Your task to perform on an android device: turn pop-ups on in chrome Image 0: 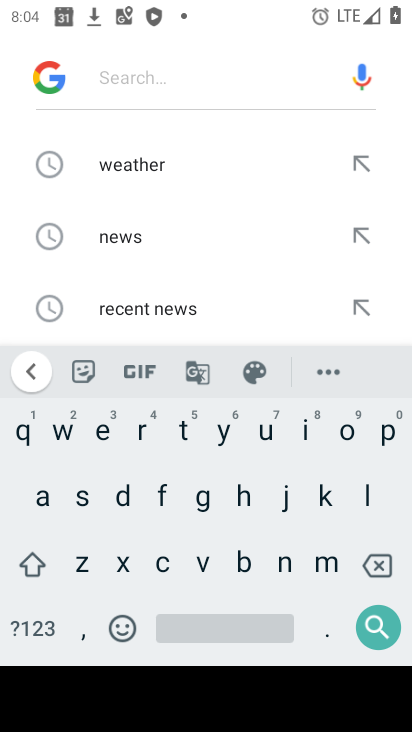
Step 0: press home button
Your task to perform on an android device: turn pop-ups on in chrome Image 1: 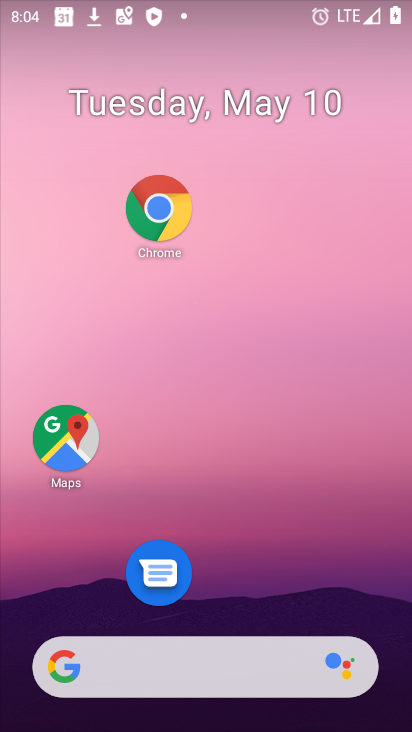
Step 1: drag from (261, 701) to (279, 324)
Your task to perform on an android device: turn pop-ups on in chrome Image 2: 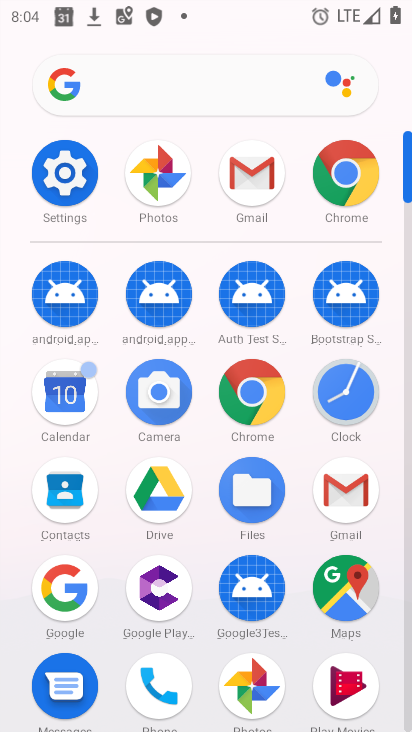
Step 2: click (337, 190)
Your task to perform on an android device: turn pop-ups on in chrome Image 3: 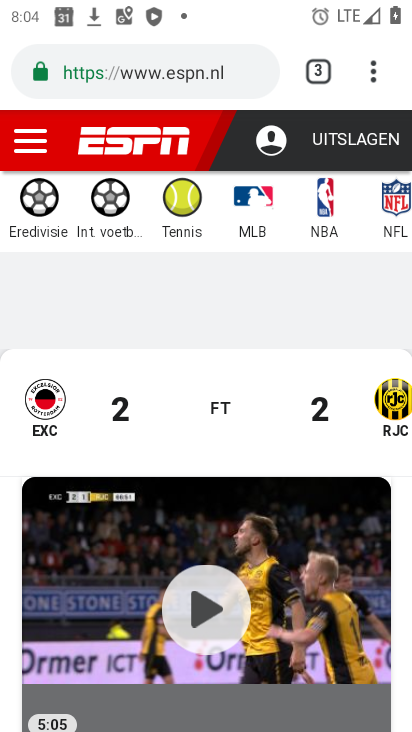
Step 3: click (366, 82)
Your task to perform on an android device: turn pop-ups on in chrome Image 4: 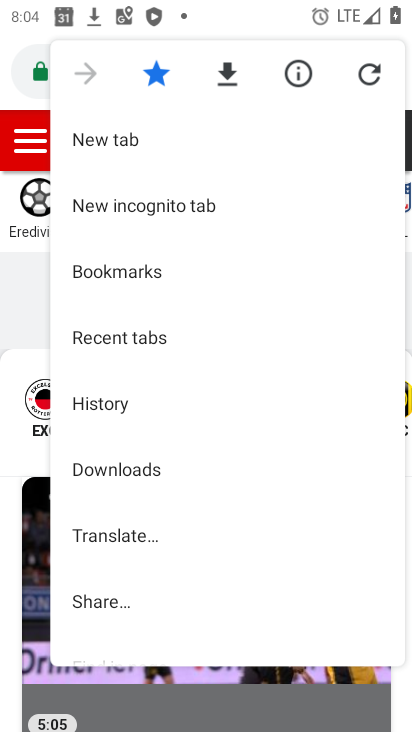
Step 4: drag from (156, 550) to (222, 290)
Your task to perform on an android device: turn pop-ups on in chrome Image 5: 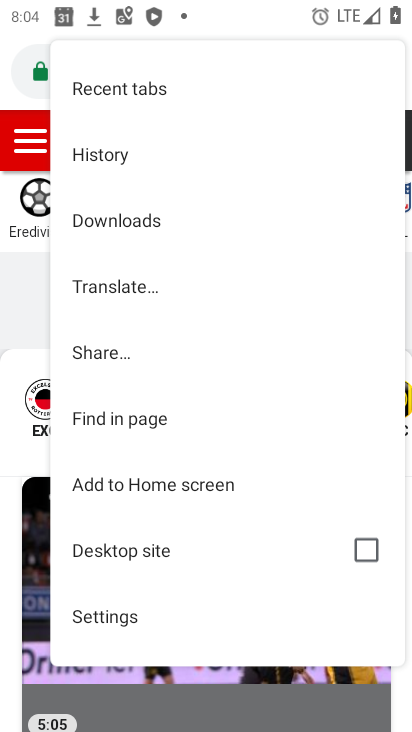
Step 5: click (117, 612)
Your task to perform on an android device: turn pop-ups on in chrome Image 6: 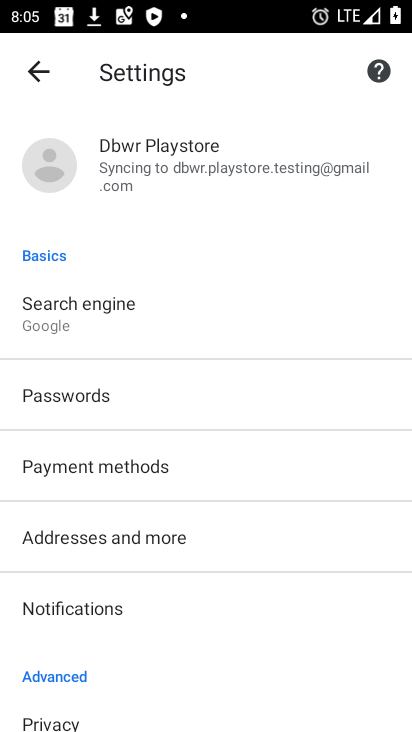
Step 6: drag from (120, 592) to (188, 376)
Your task to perform on an android device: turn pop-ups on in chrome Image 7: 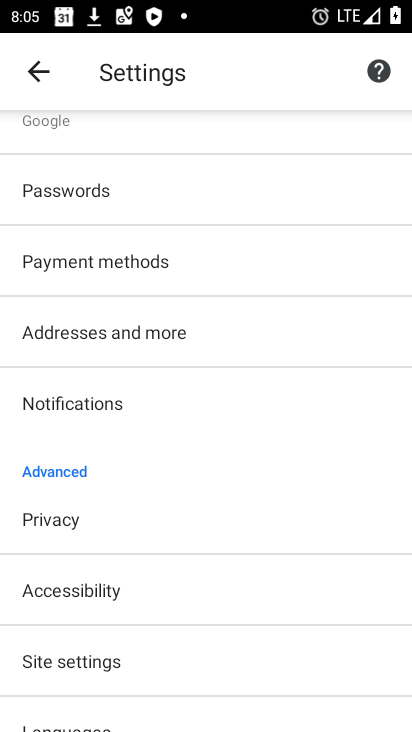
Step 7: click (84, 668)
Your task to perform on an android device: turn pop-ups on in chrome Image 8: 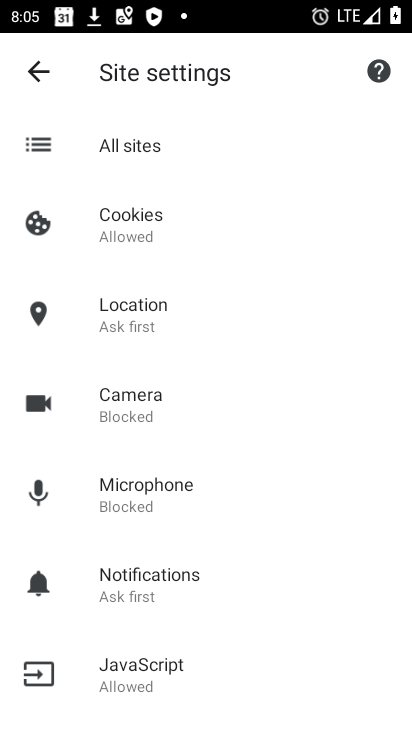
Step 8: drag from (192, 570) to (268, 277)
Your task to perform on an android device: turn pop-ups on in chrome Image 9: 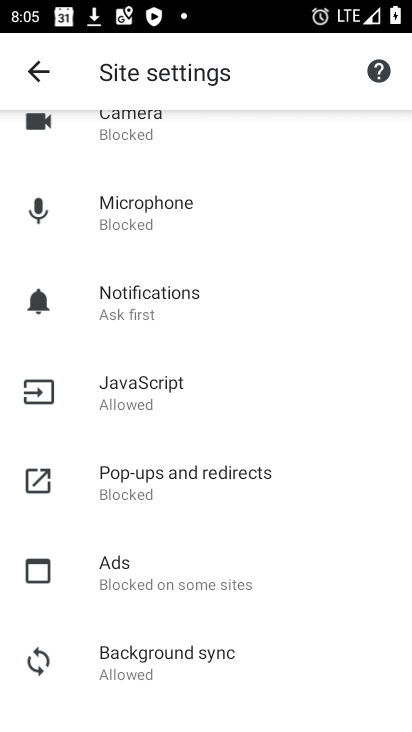
Step 9: click (189, 480)
Your task to perform on an android device: turn pop-ups on in chrome Image 10: 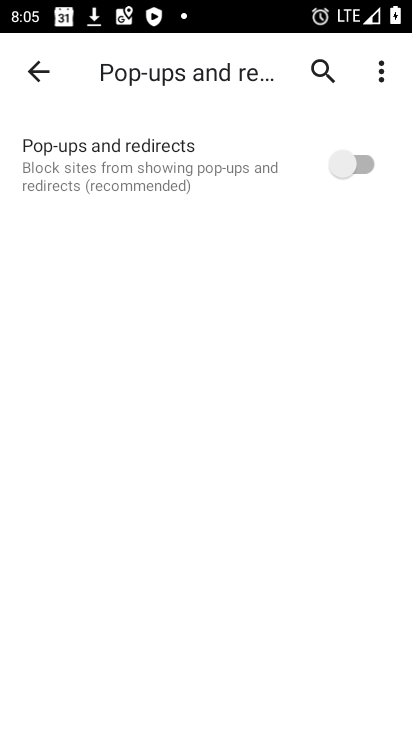
Step 10: click (286, 162)
Your task to perform on an android device: turn pop-ups on in chrome Image 11: 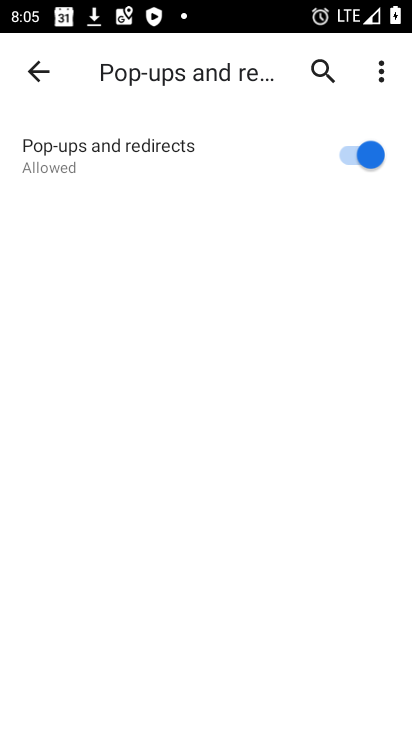
Step 11: task complete